Your task to perform on an android device: Add usb-c to usb-a to the cart on costco.com Image 0: 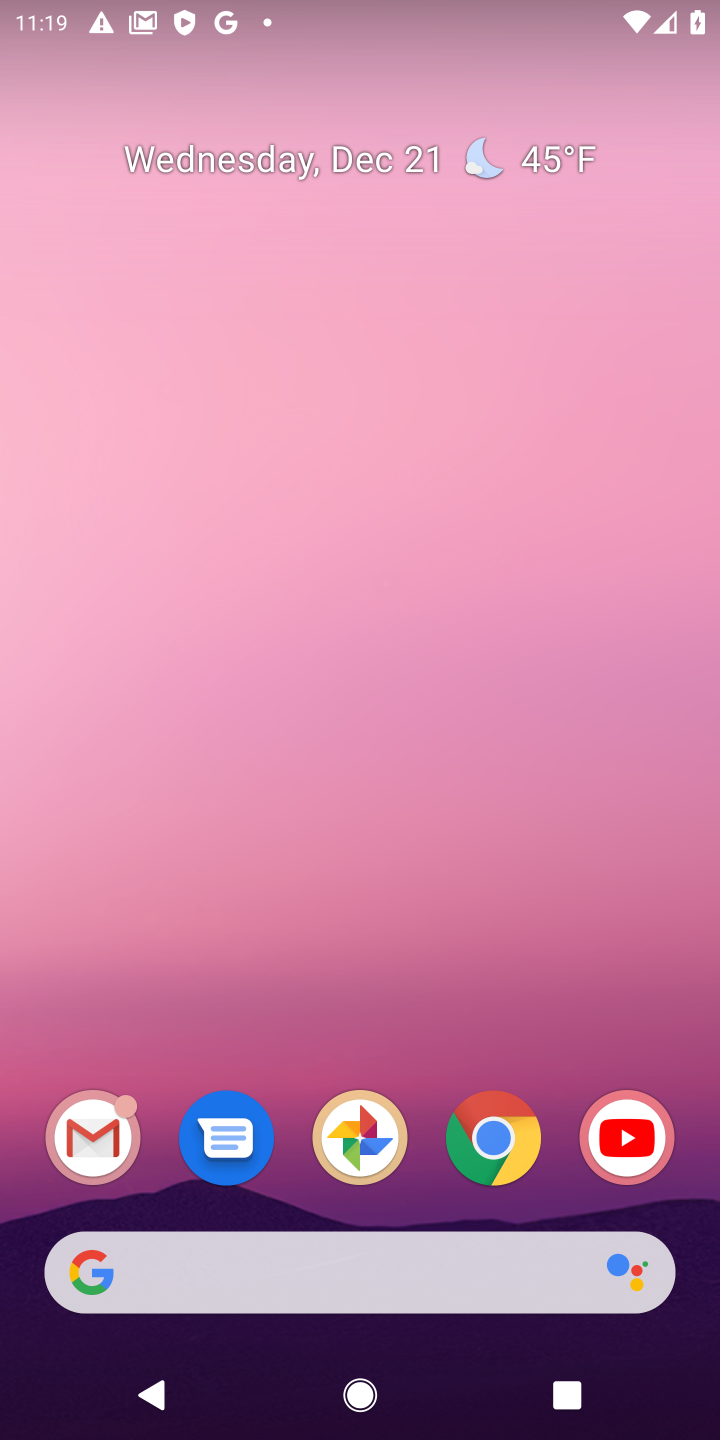
Step 0: click (486, 1145)
Your task to perform on an android device: Add usb-c to usb-a to the cart on costco.com Image 1: 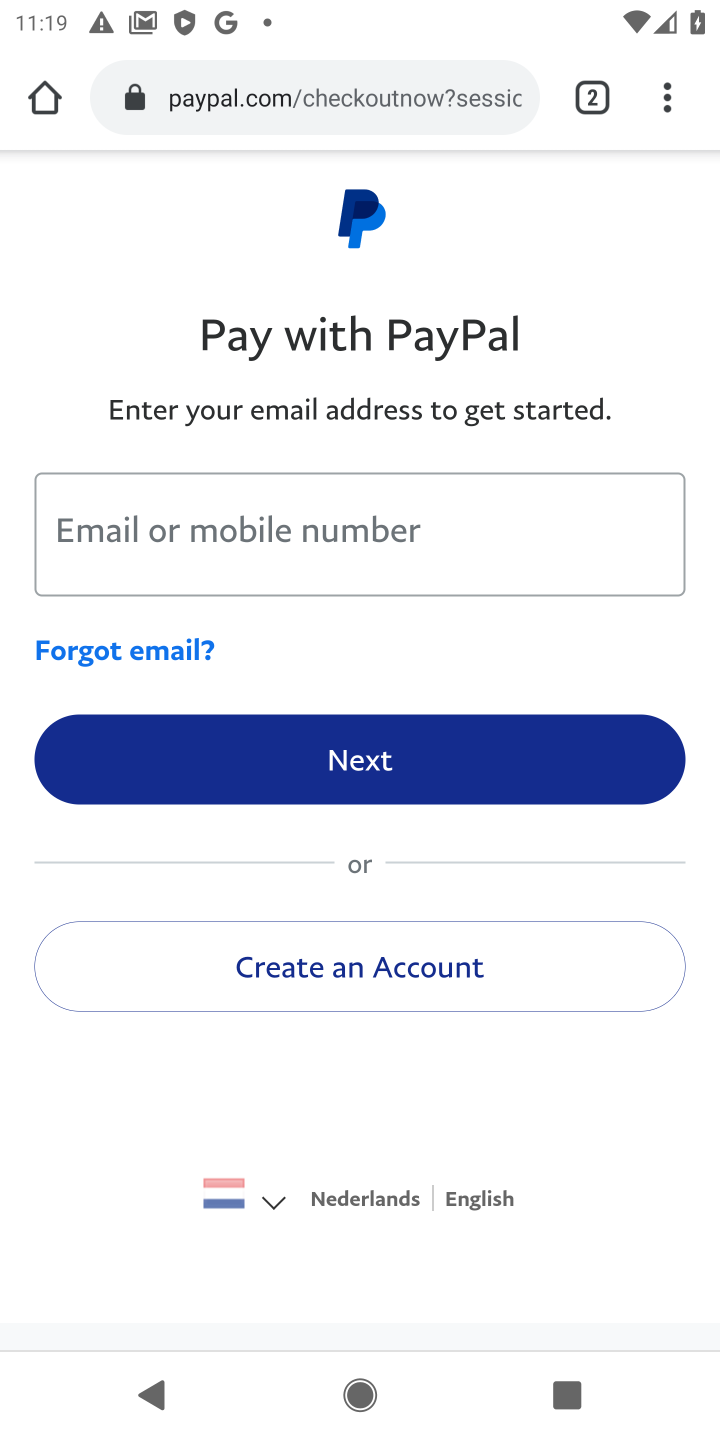
Step 1: click (282, 99)
Your task to perform on an android device: Add usb-c to usb-a to the cart on costco.com Image 2: 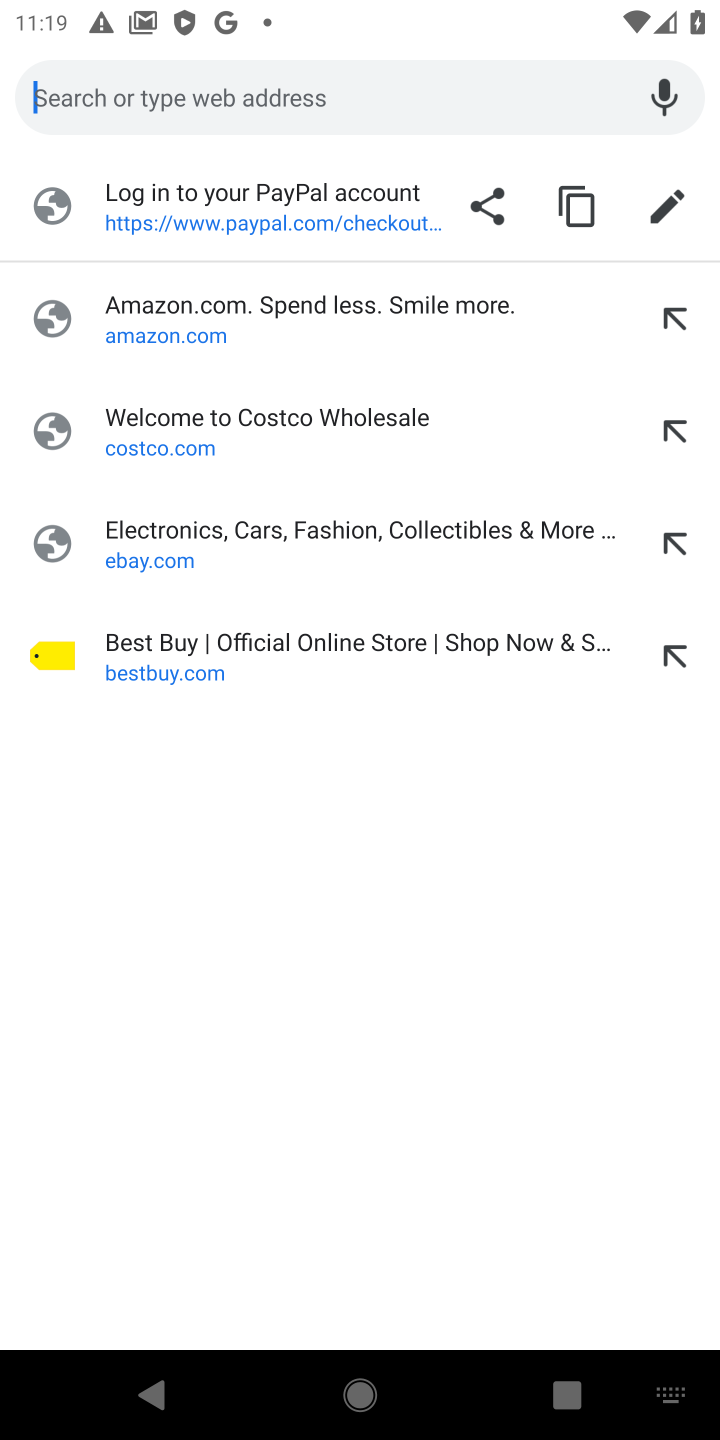
Step 2: click (130, 452)
Your task to perform on an android device: Add usb-c to usb-a to the cart on costco.com Image 3: 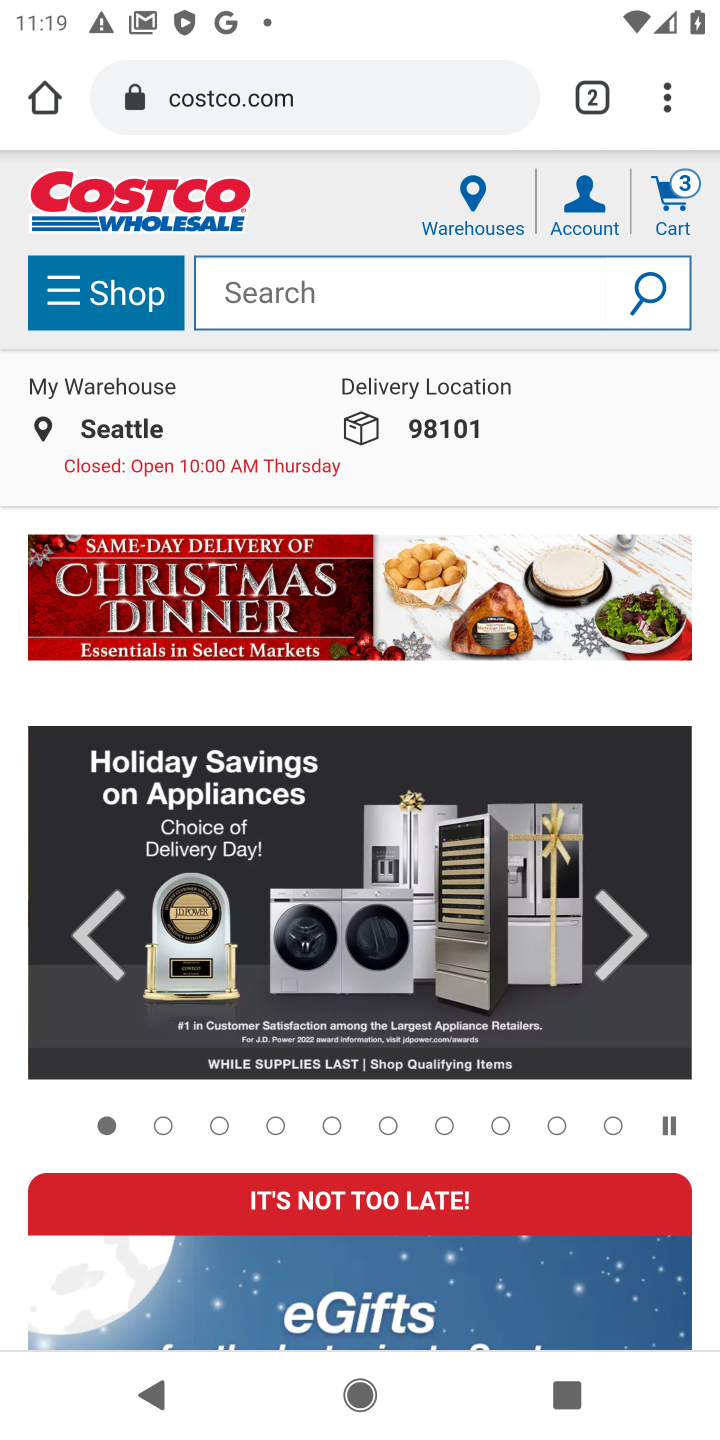
Step 3: click (301, 301)
Your task to perform on an android device: Add usb-c to usb-a to the cart on costco.com Image 4: 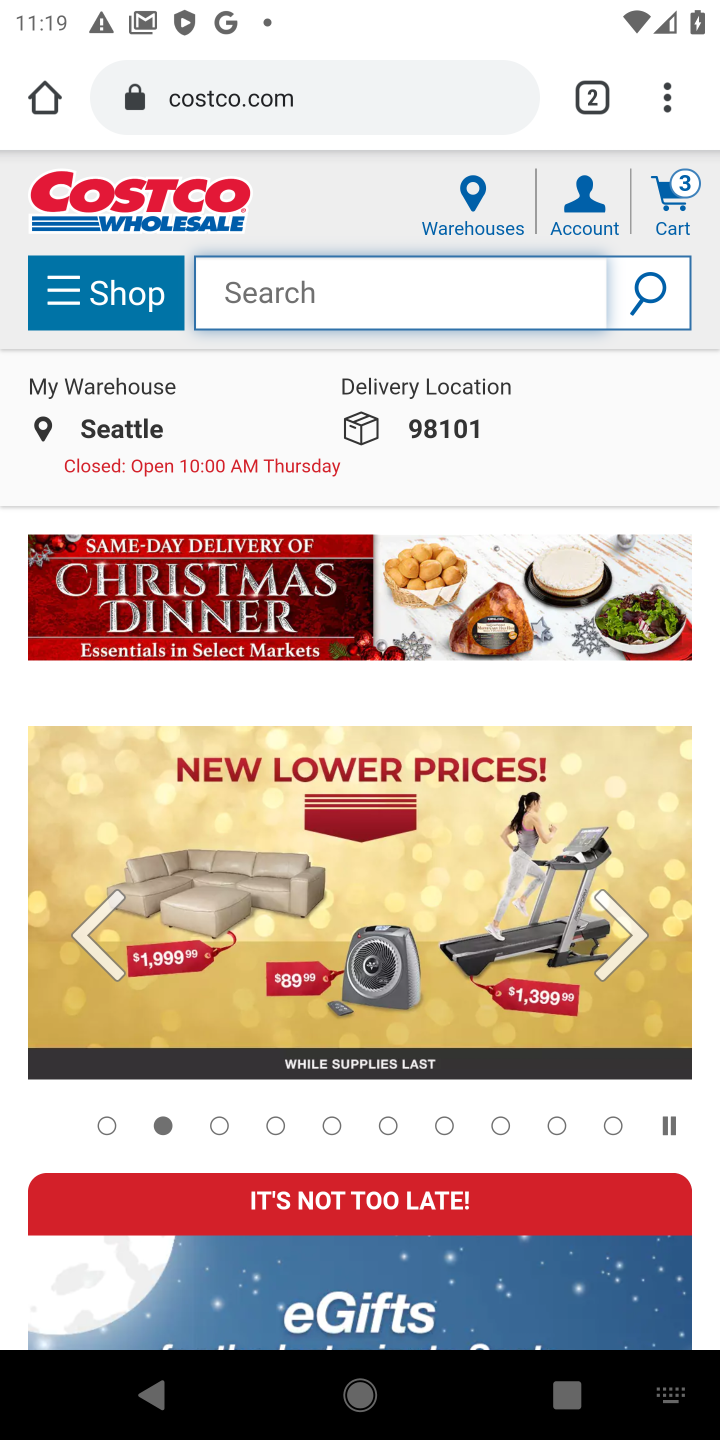
Step 4: type "usb-c to usb-a"
Your task to perform on an android device: Add usb-c to usb-a to the cart on costco.com Image 5: 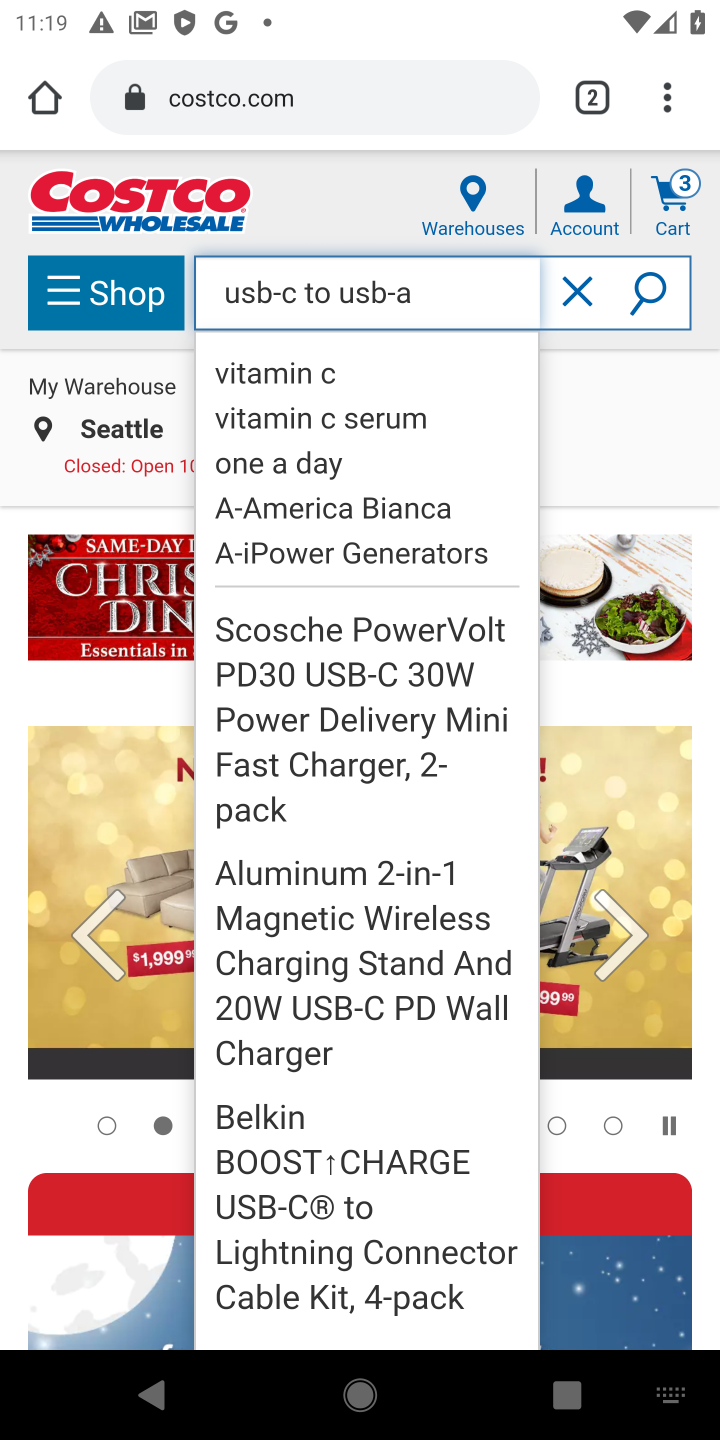
Step 5: click (654, 287)
Your task to perform on an android device: Add usb-c to usb-a to the cart on costco.com Image 6: 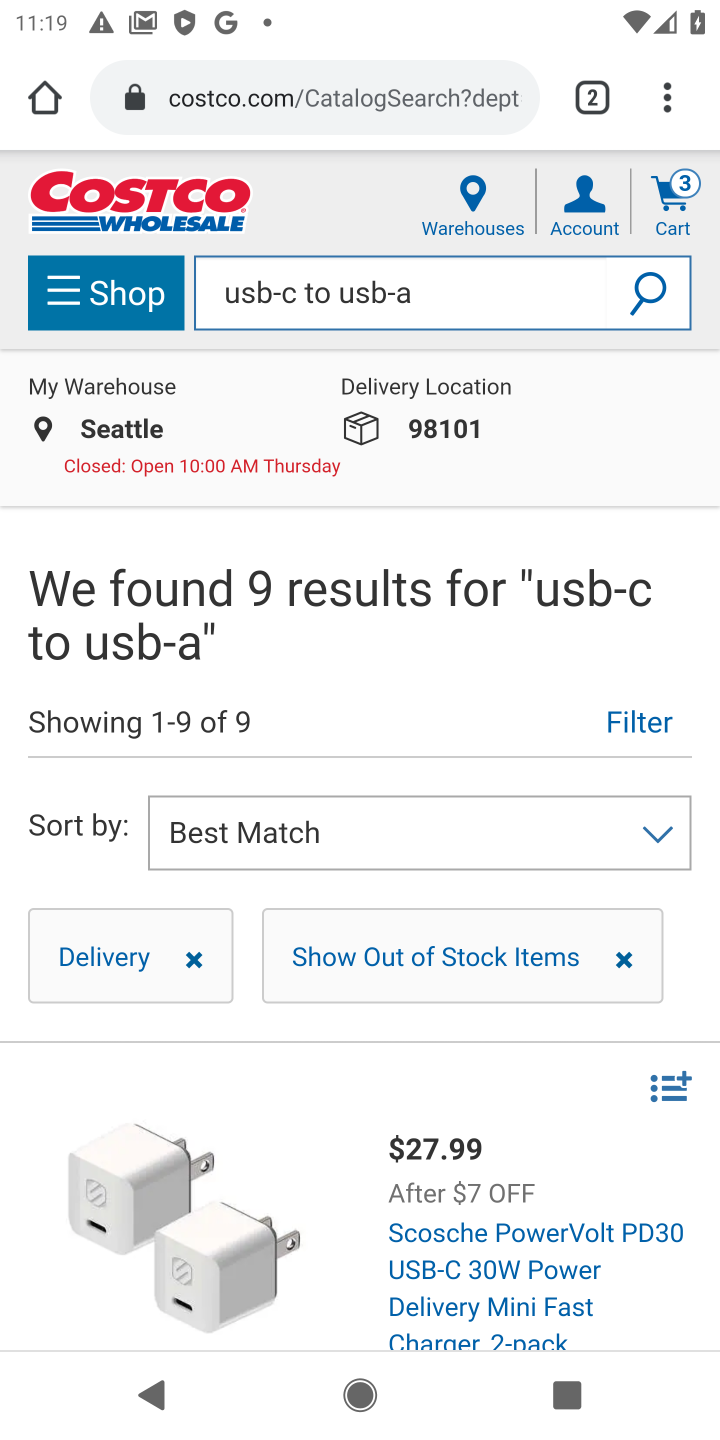
Step 6: task complete